Your task to perform on an android device: toggle wifi Image 0: 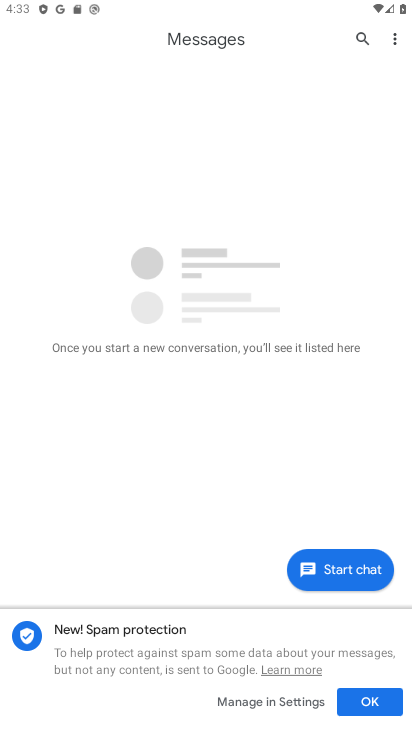
Step 0: press back button
Your task to perform on an android device: toggle wifi Image 1: 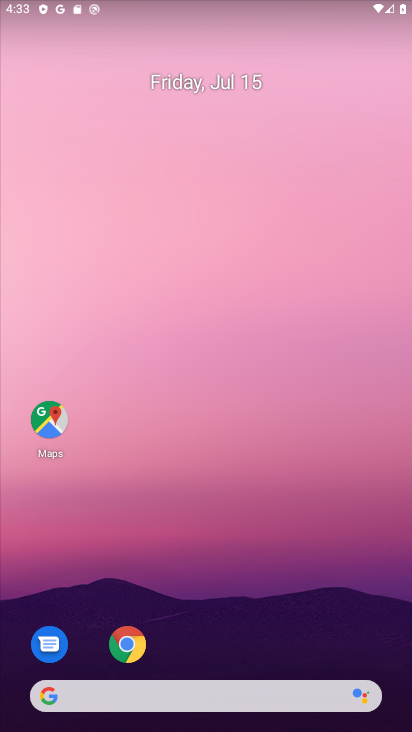
Step 1: drag from (265, 96) to (289, 319)
Your task to perform on an android device: toggle wifi Image 2: 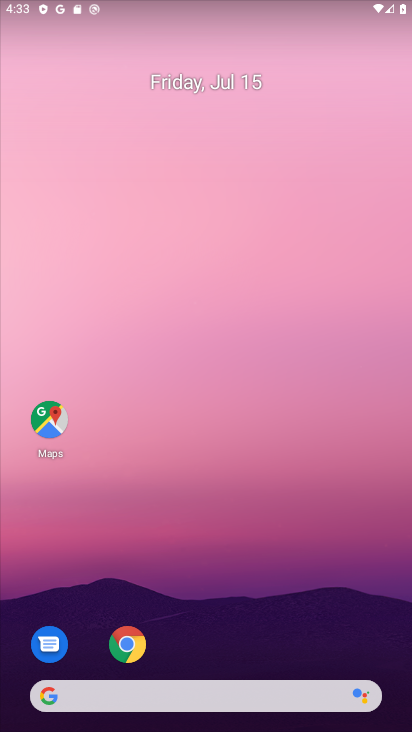
Step 2: drag from (188, 13) to (189, 286)
Your task to perform on an android device: toggle wifi Image 3: 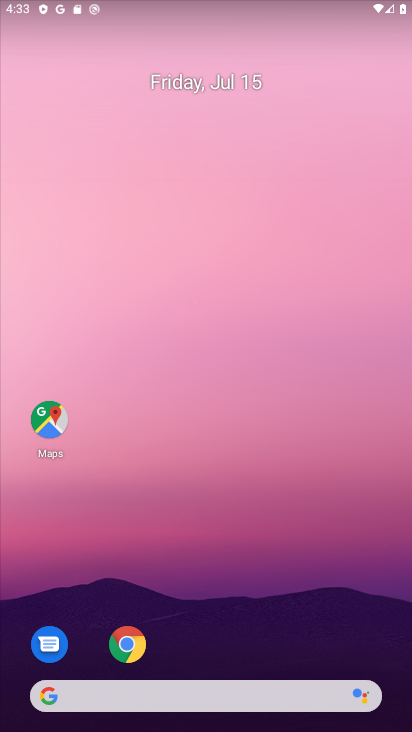
Step 3: drag from (255, 9) to (261, 447)
Your task to perform on an android device: toggle wifi Image 4: 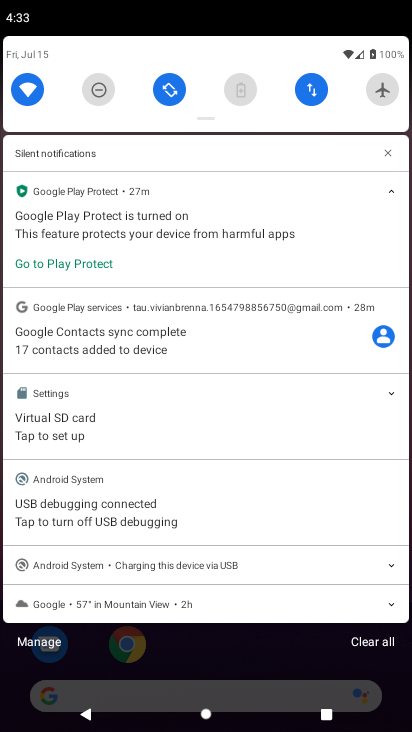
Step 4: click (29, 83)
Your task to perform on an android device: toggle wifi Image 5: 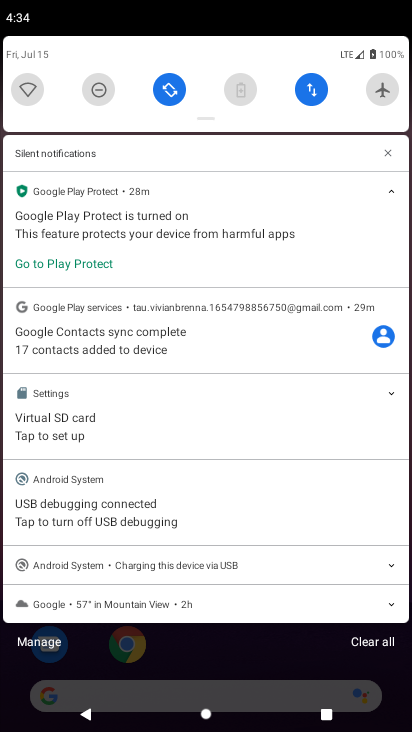
Step 5: task complete